Your task to perform on an android device: move an email to a new category in the gmail app Image 0: 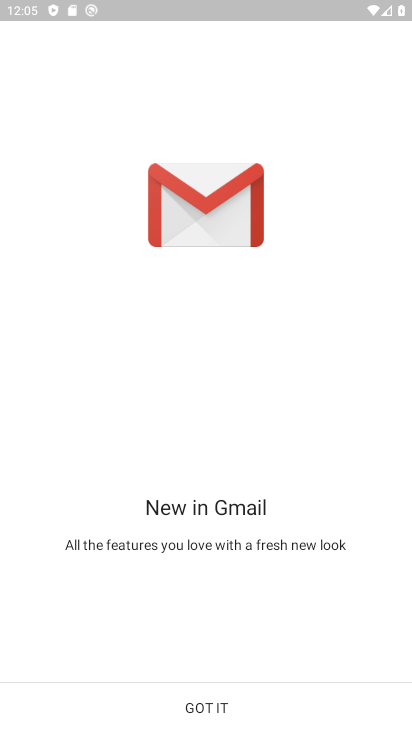
Step 0: click (184, 689)
Your task to perform on an android device: move an email to a new category in the gmail app Image 1: 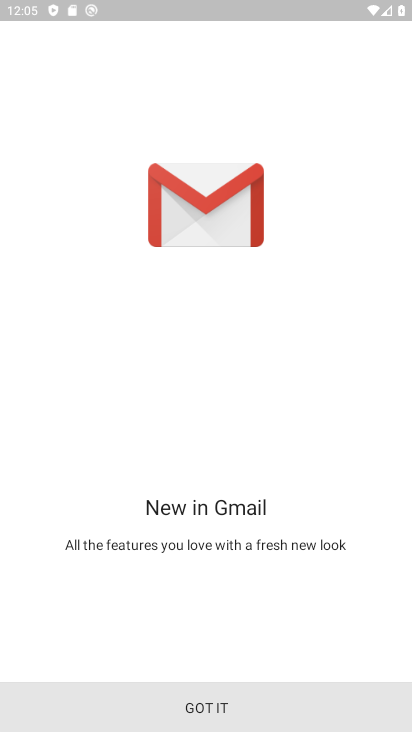
Step 1: click (184, 689)
Your task to perform on an android device: move an email to a new category in the gmail app Image 2: 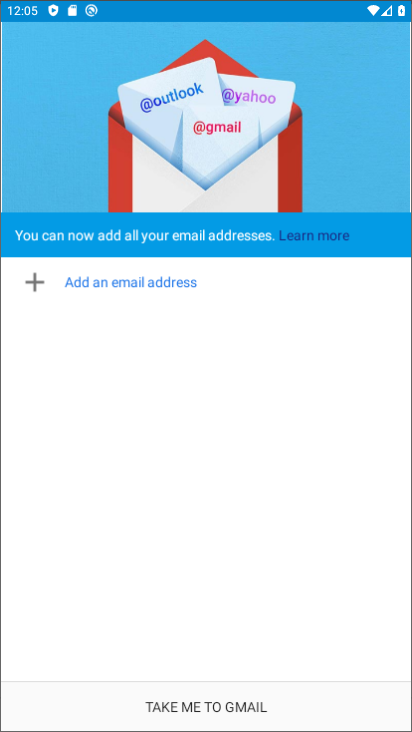
Step 2: click (186, 692)
Your task to perform on an android device: move an email to a new category in the gmail app Image 3: 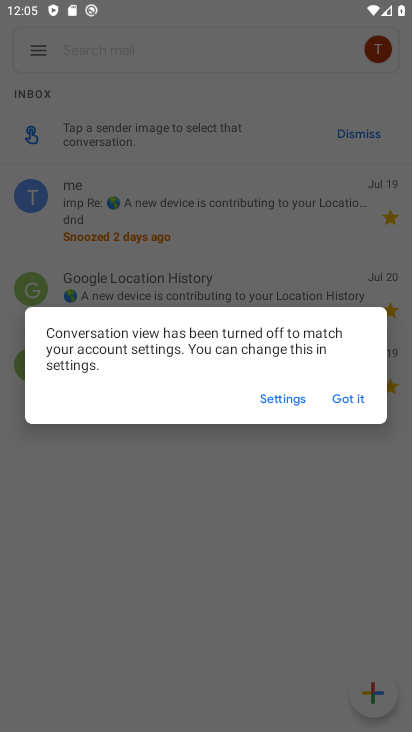
Step 3: click (346, 393)
Your task to perform on an android device: move an email to a new category in the gmail app Image 4: 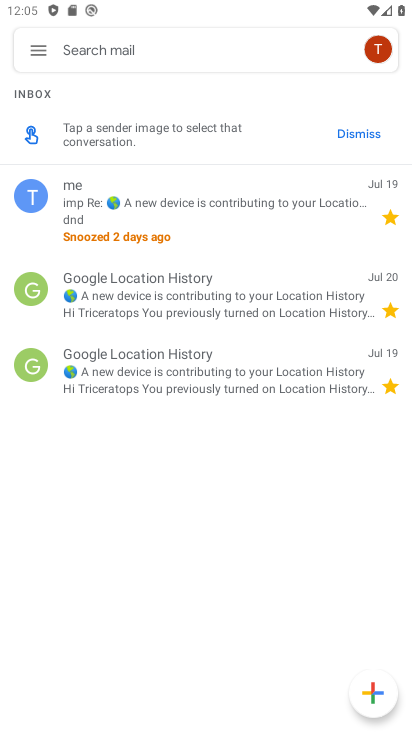
Step 4: click (196, 301)
Your task to perform on an android device: move an email to a new category in the gmail app Image 5: 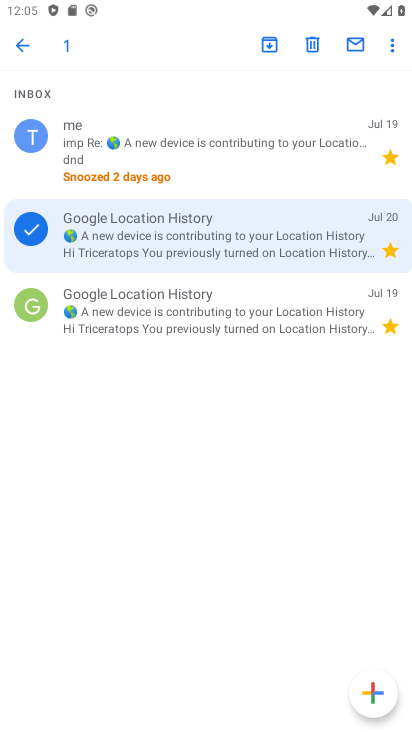
Step 5: click (388, 42)
Your task to perform on an android device: move an email to a new category in the gmail app Image 6: 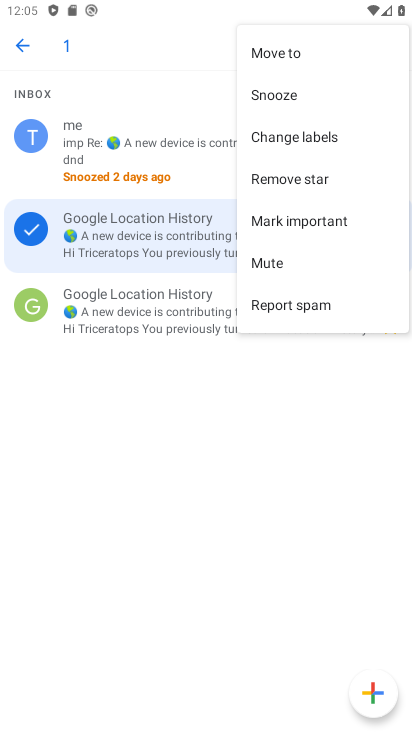
Step 6: click (61, 581)
Your task to perform on an android device: move an email to a new category in the gmail app Image 7: 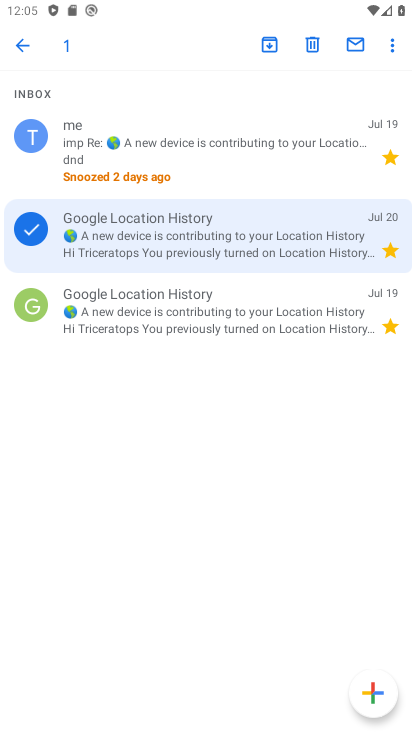
Step 7: click (386, 41)
Your task to perform on an android device: move an email to a new category in the gmail app Image 8: 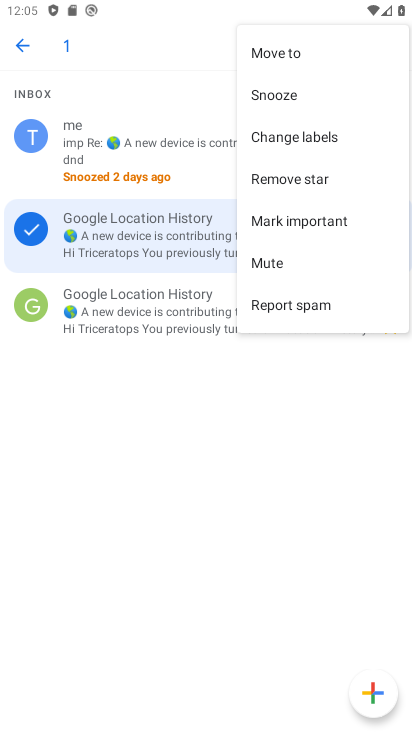
Step 8: click (386, 41)
Your task to perform on an android device: move an email to a new category in the gmail app Image 9: 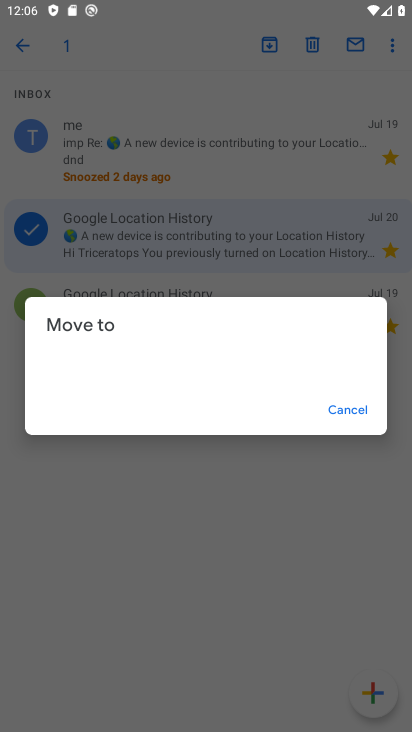
Step 9: click (347, 410)
Your task to perform on an android device: move an email to a new category in the gmail app Image 10: 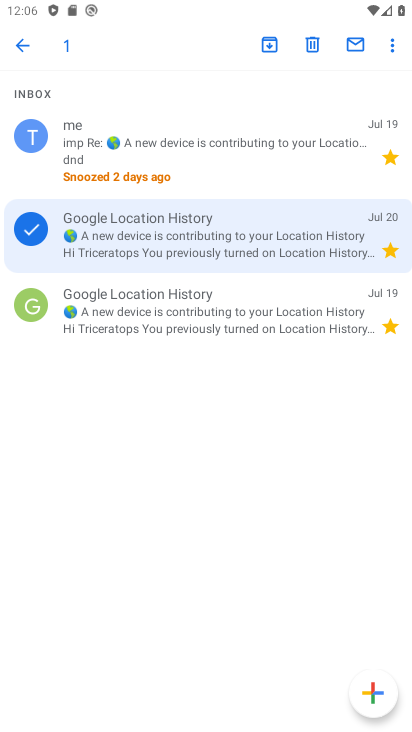
Step 10: click (392, 39)
Your task to perform on an android device: move an email to a new category in the gmail app Image 11: 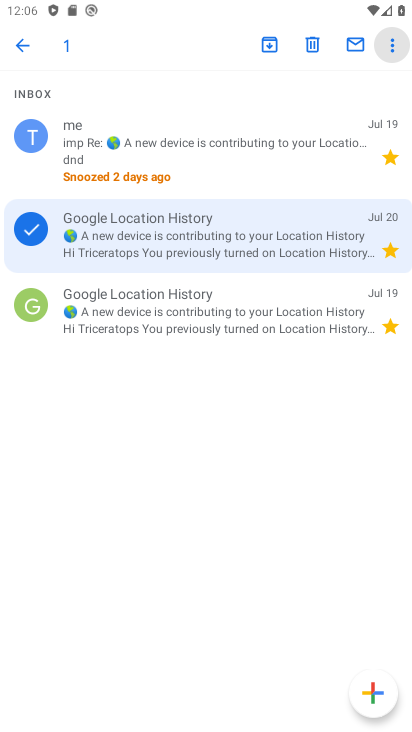
Step 11: click (392, 39)
Your task to perform on an android device: move an email to a new category in the gmail app Image 12: 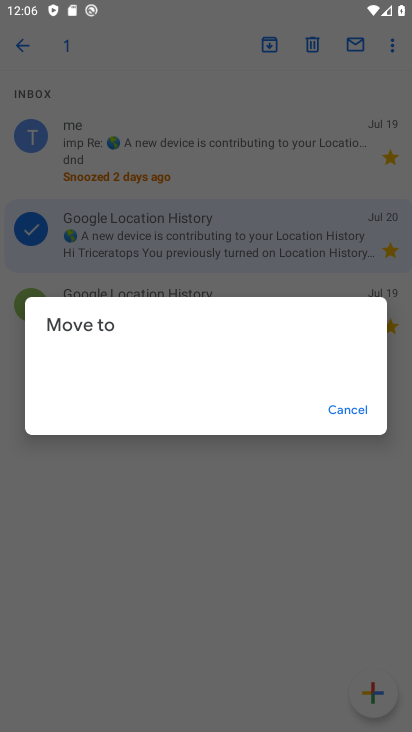
Step 12: click (348, 416)
Your task to perform on an android device: move an email to a new category in the gmail app Image 13: 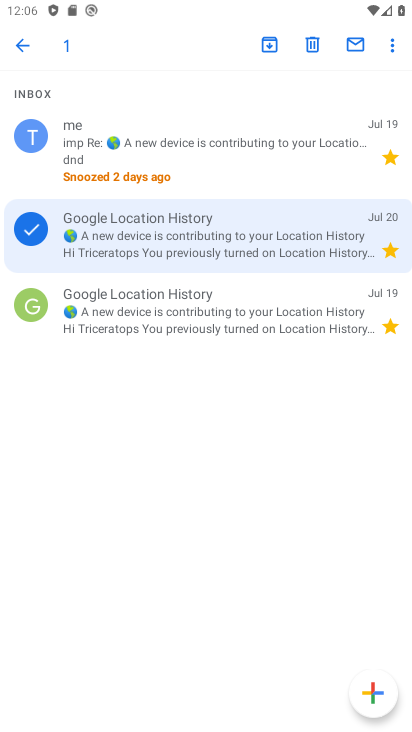
Step 13: click (390, 51)
Your task to perform on an android device: move an email to a new category in the gmail app Image 14: 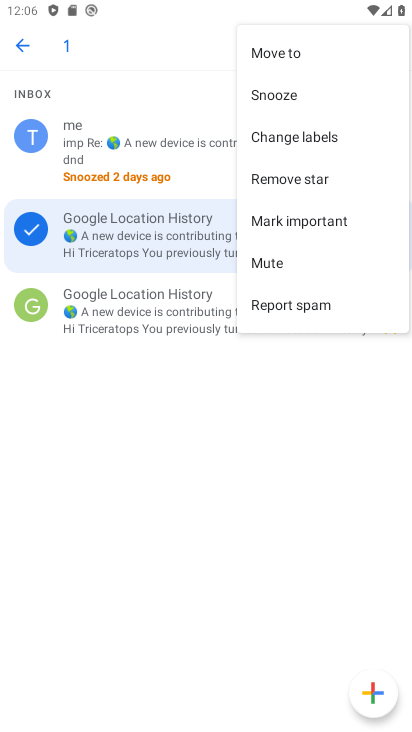
Step 14: click (210, 417)
Your task to perform on an android device: move an email to a new category in the gmail app Image 15: 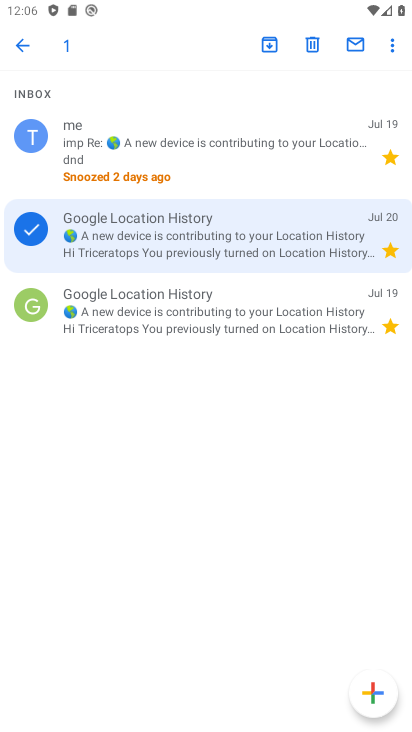
Step 15: task complete